Your task to perform on an android device: turn on wifi Image 0: 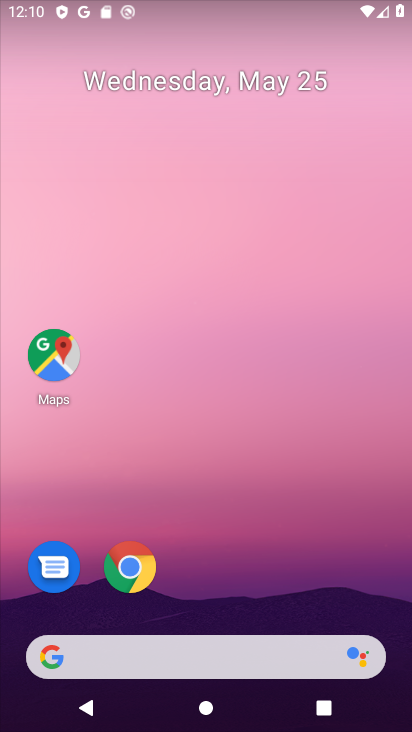
Step 0: drag from (239, 582) to (192, 52)
Your task to perform on an android device: turn on wifi Image 1: 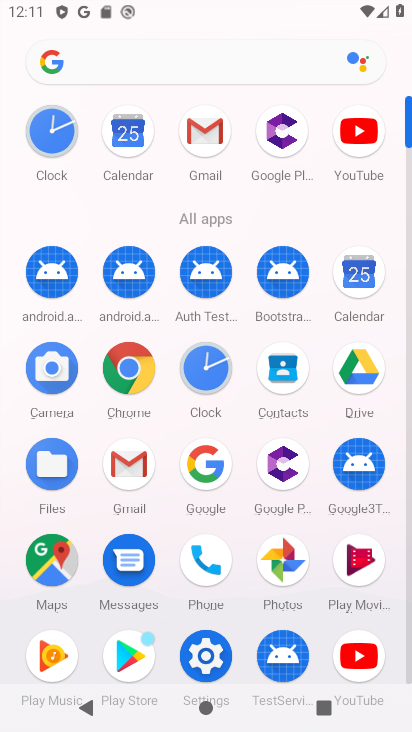
Step 1: click (207, 656)
Your task to perform on an android device: turn on wifi Image 2: 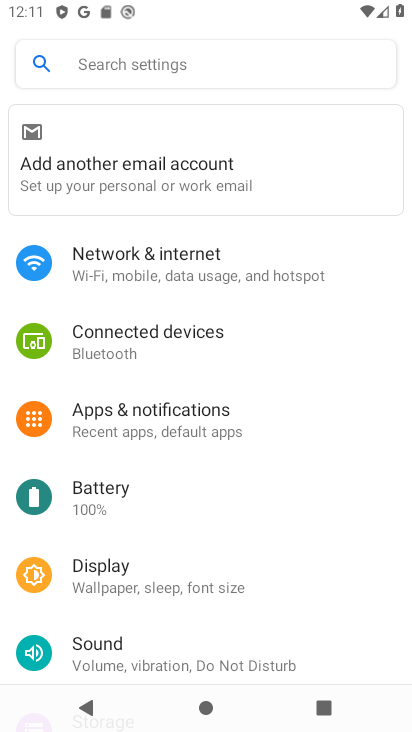
Step 2: click (141, 273)
Your task to perform on an android device: turn on wifi Image 3: 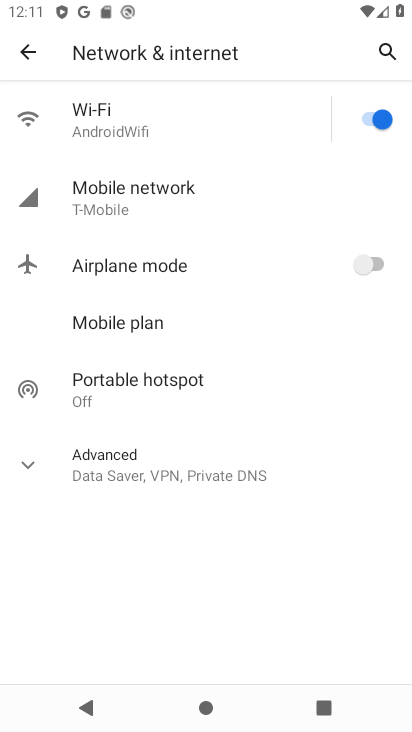
Step 3: task complete